Your task to perform on an android device: Do I have any events today? Image 0: 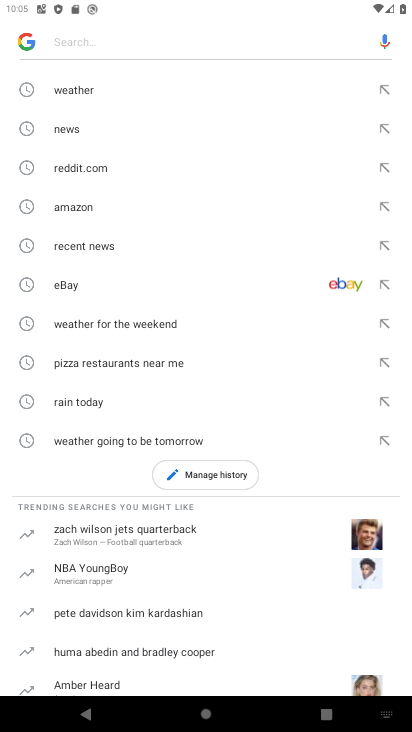
Step 0: press home button
Your task to perform on an android device: Do I have any events today? Image 1: 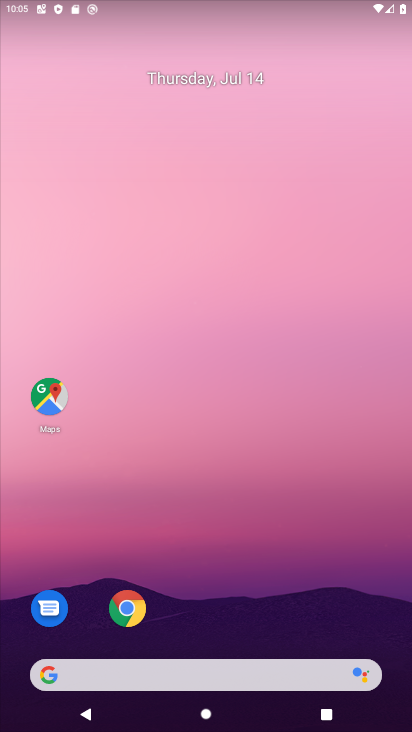
Step 1: drag from (234, 571) to (208, 240)
Your task to perform on an android device: Do I have any events today? Image 2: 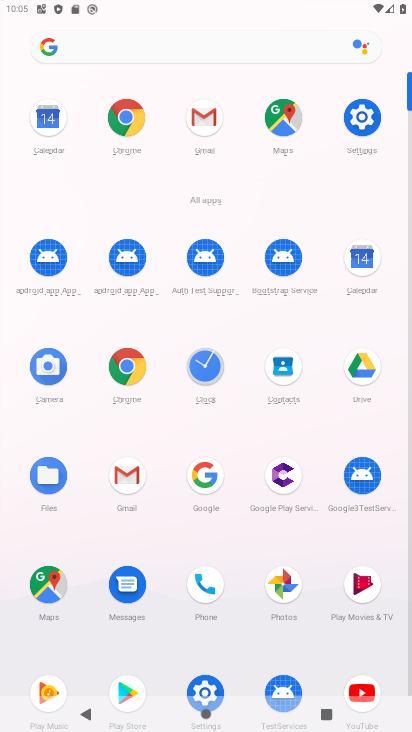
Step 2: click (387, 256)
Your task to perform on an android device: Do I have any events today? Image 3: 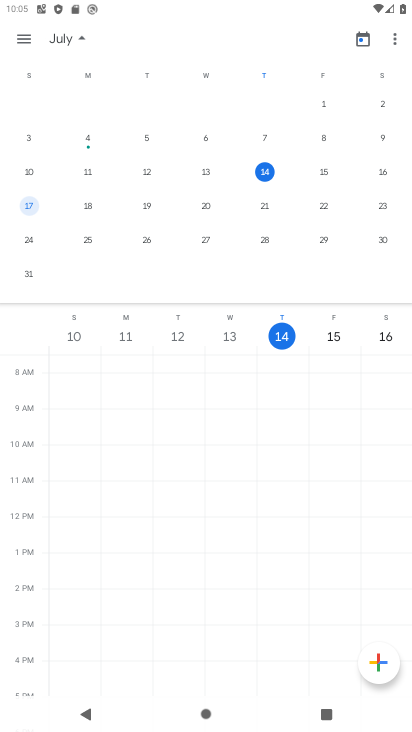
Step 3: click (255, 170)
Your task to perform on an android device: Do I have any events today? Image 4: 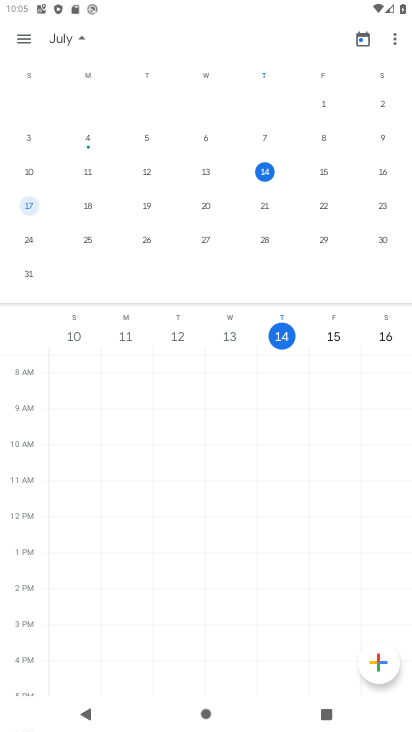
Step 4: click (255, 170)
Your task to perform on an android device: Do I have any events today? Image 5: 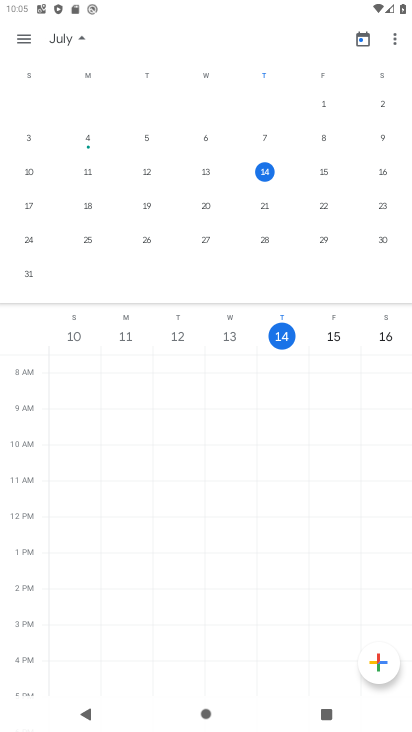
Step 5: task complete